Your task to perform on an android device: Open Android settings Image 0: 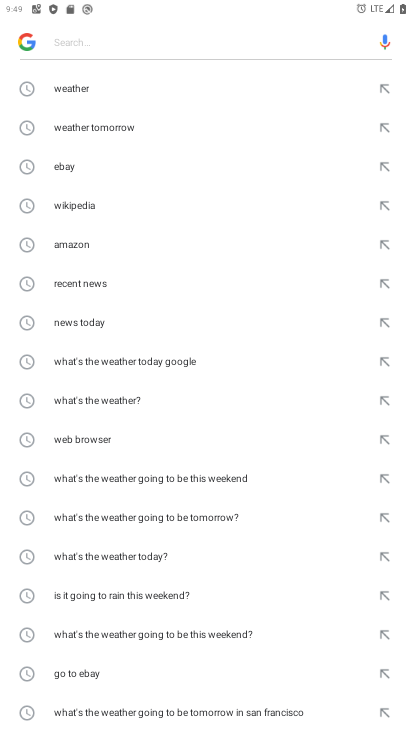
Step 0: drag from (220, 721) to (220, 234)
Your task to perform on an android device: Open Android settings Image 1: 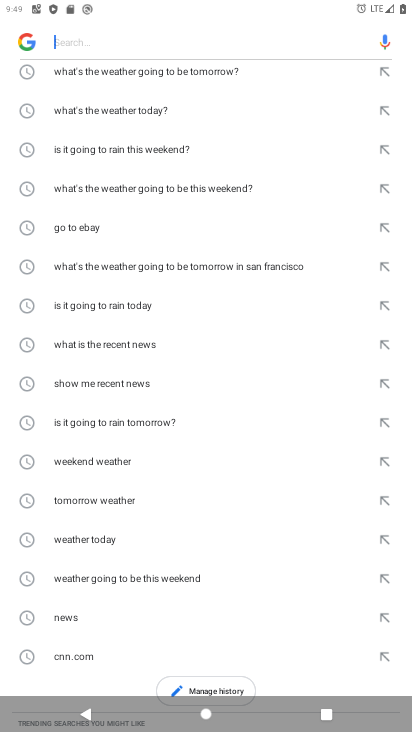
Step 1: press home button
Your task to perform on an android device: Open Android settings Image 2: 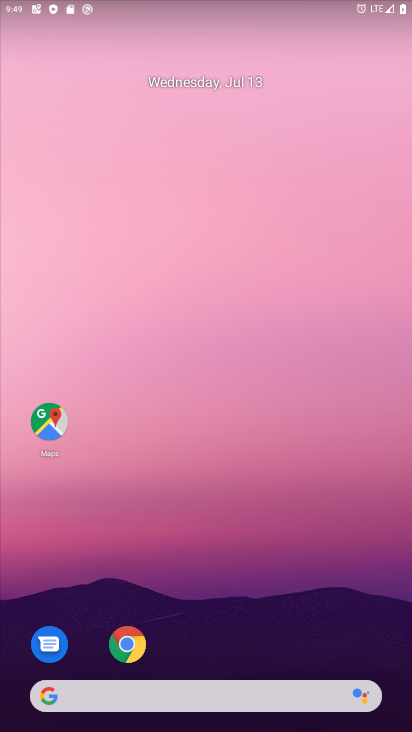
Step 2: drag from (227, 703) to (210, 125)
Your task to perform on an android device: Open Android settings Image 3: 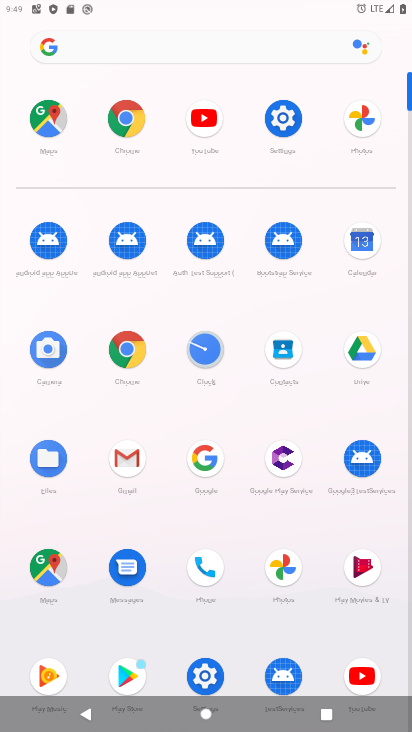
Step 3: click (286, 111)
Your task to perform on an android device: Open Android settings Image 4: 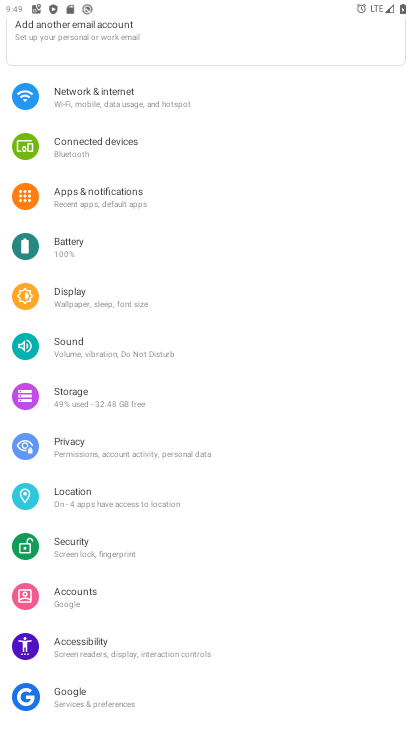
Step 4: task complete